Your task to perform on an android device: add a contact Image 0: 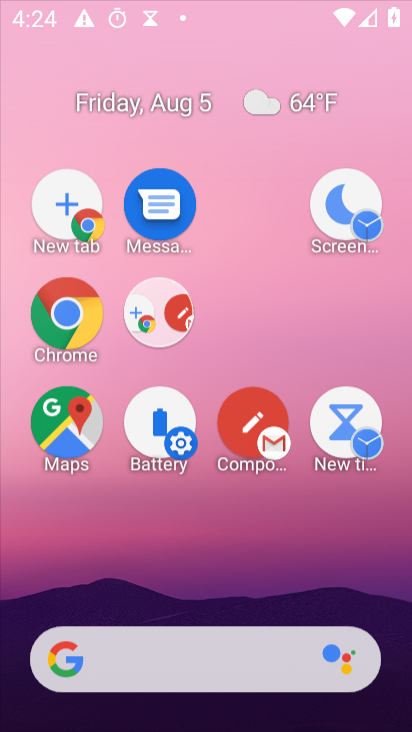
Step 0: press back button
Your task to perform on an android device: add a contact Image 1: 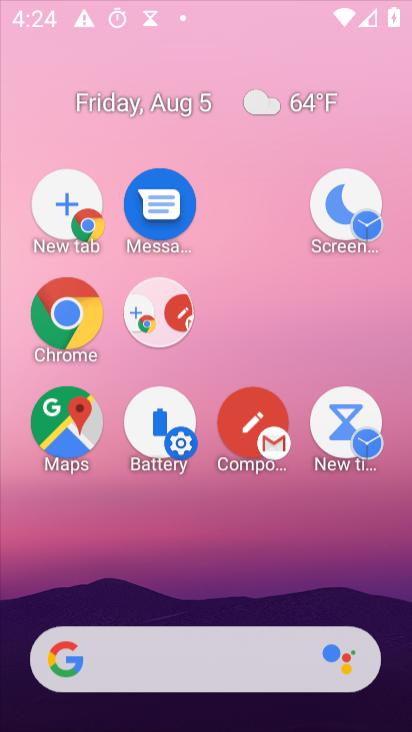
Step 1: click (126, 224)
Your task to perform on an android device: add a contact Image 2: 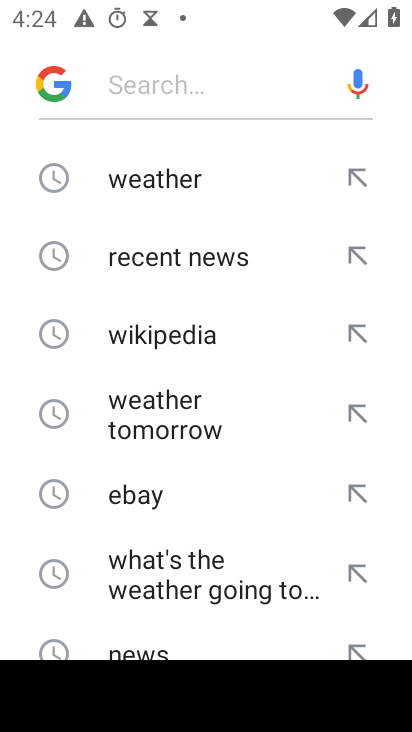
Step 2: press back button
Your task to perform on an android device: add a contact Image 3: 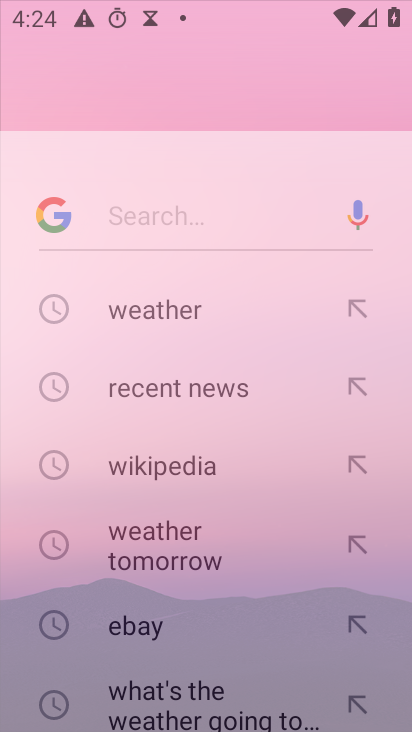
Step 3: click (221, 170)
Your task to perform on an android device: add a contact Image 4: 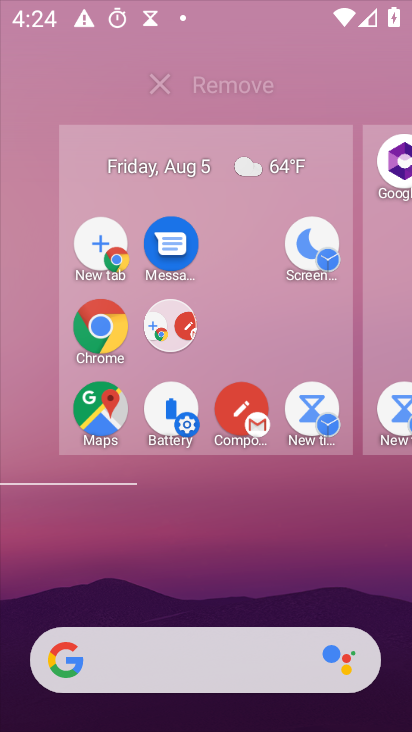
Step 4: drag from (206, 557) to (110, 36)
Your task to perform on an android device: add a contact Image 5: 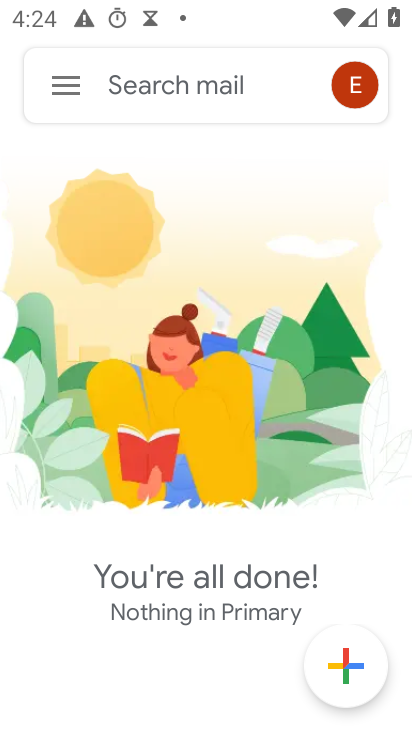
Step 5: drag from (229, 520) to (119, 123)
Your task to perform on an android device: add a contact Image 6: 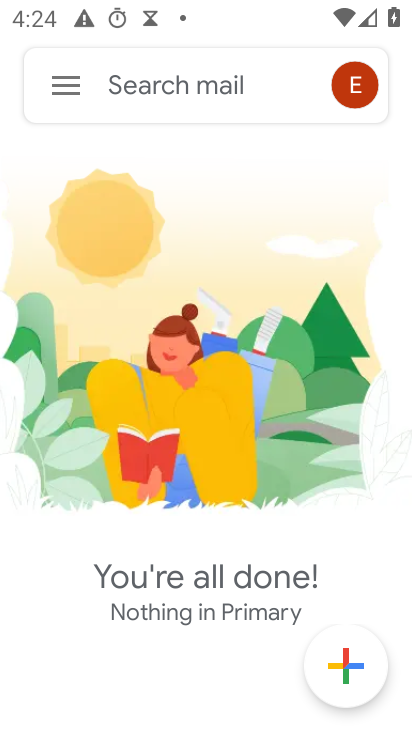
Step 6: press back button
Your task to perform on an android device: add a contact Image 7: 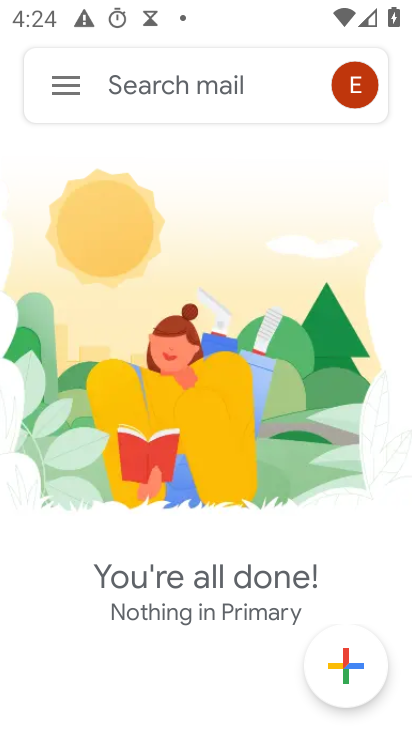
Step 7: press back button
Your task to perform on an android device: add a contact Image 8: 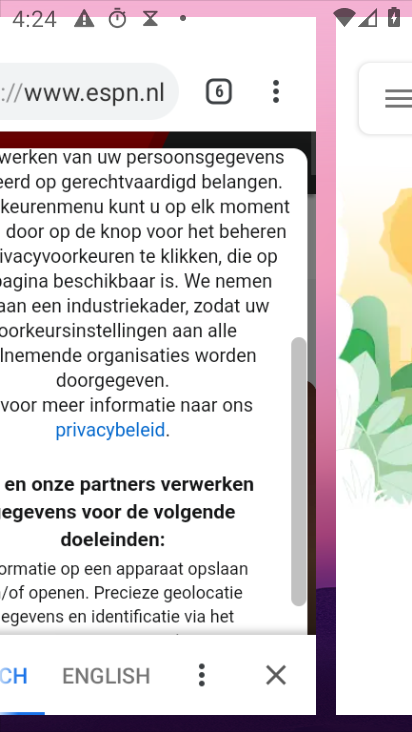
Step 8: press back button
Your task to perform on an android device: add a contact Image 9: 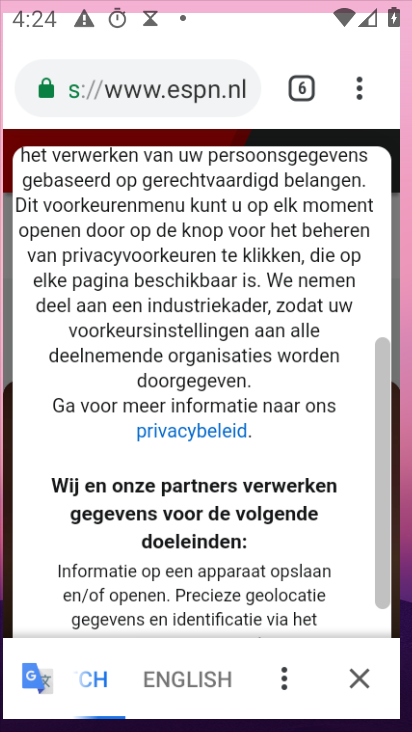
Step 9: press home button
Your task to perform on an android device: add a contact Image 10: 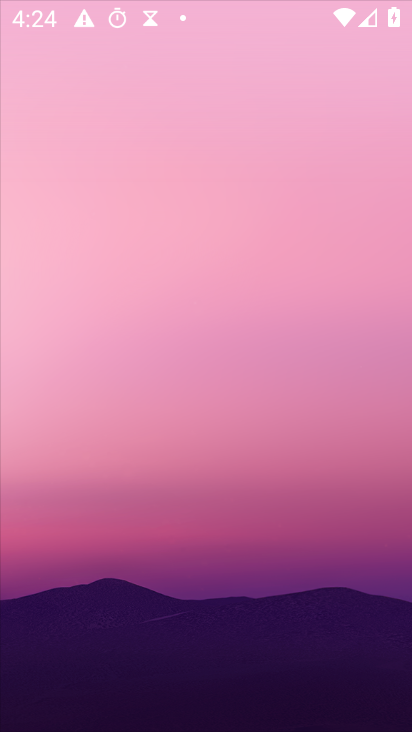
Step 10: press back button
Your task to perform on an android device: add a contact Image 11: 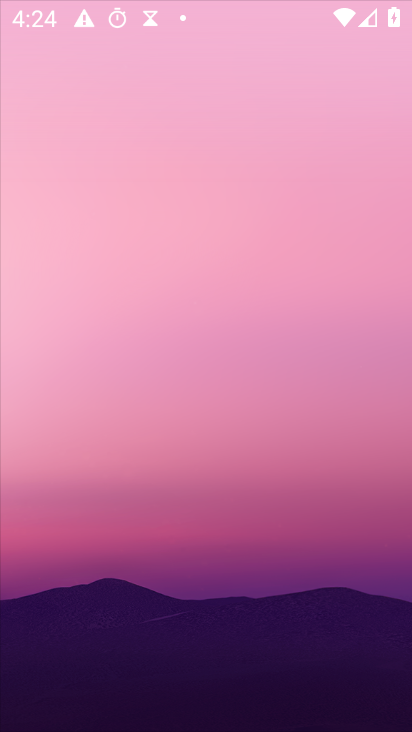
Step 11: drag from (117, 244) to (192, 293)
Your task to perform on an android device: add a contact Image 12: 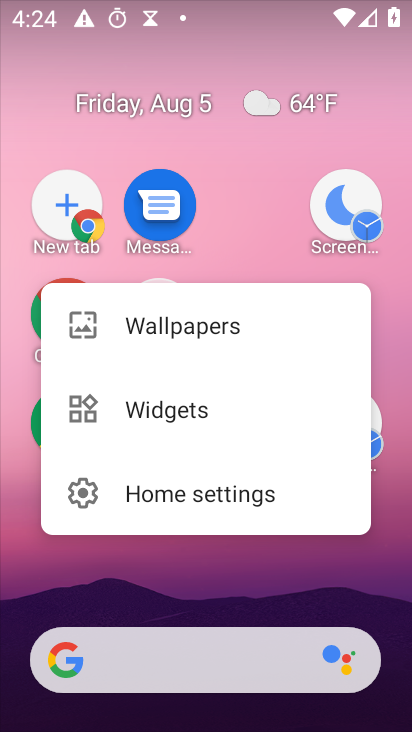
Step 12: click (141, 87)
Your task to perform on an android device: add a contact Image 13: 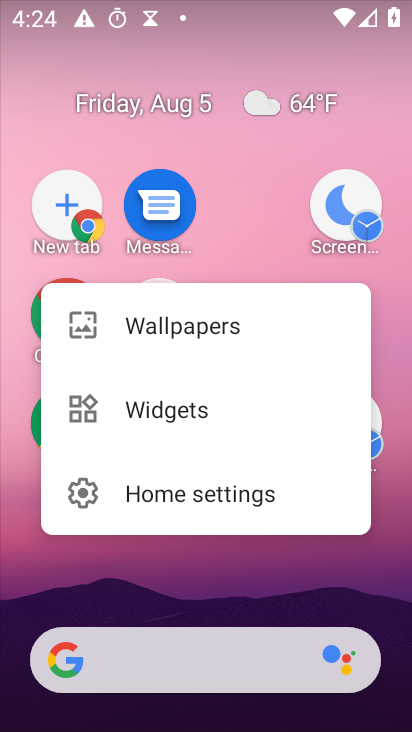
Step 13: drag from (233, 429) to (187, 152)
Your task to perform on an android device: add a contact Image 14: 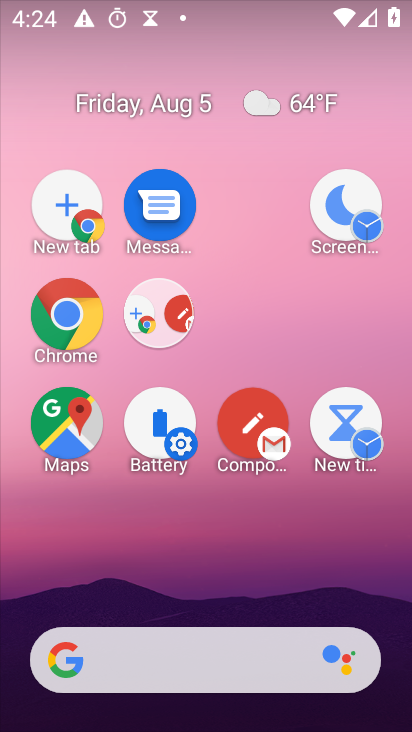
Step 14: drag from (213, 215) to (192, 89)
Your task to perform on an android device: add a contact Image 15: 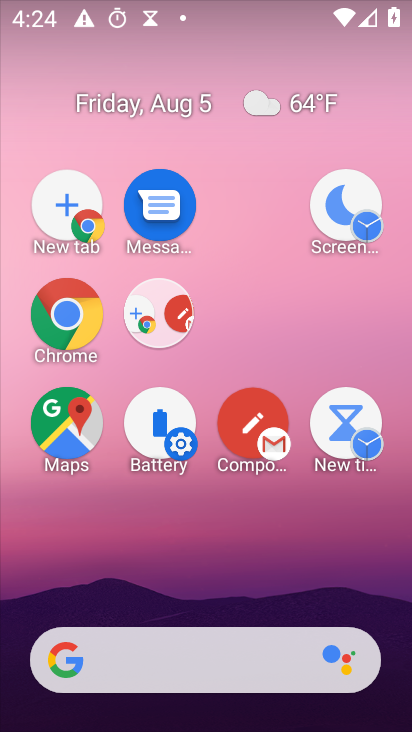
Step 15: drag from (218, 439) to (162, 44)
Your task to perform on an android device: add a contact Image 16: 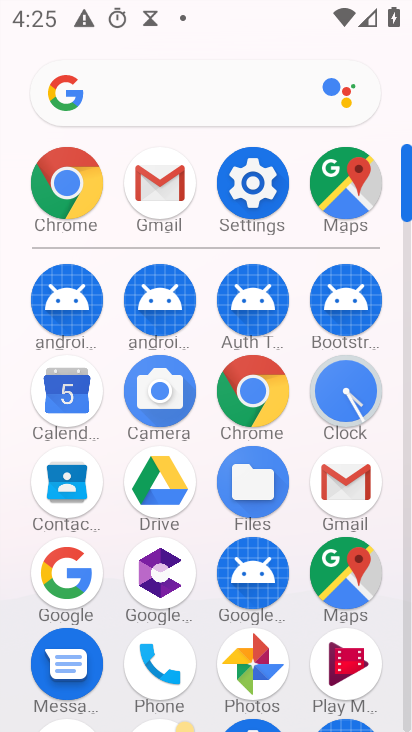
Step 16: click (89, 497)
Your task to perform on an android device: add a contact Image 17: 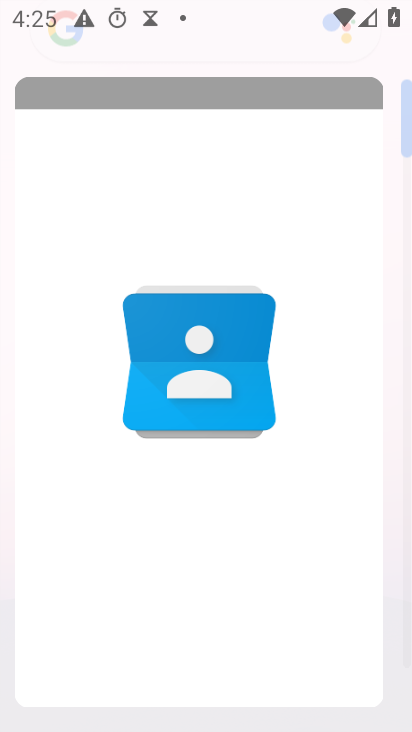
Step 17: click (62, 474)
Your task to perform on an android device: add a contact Image 18: 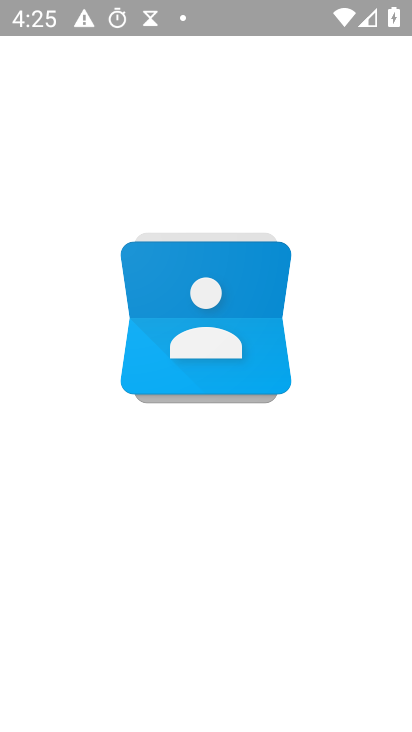
Step 18: click (62, 474)
Your task to perform on an android device: add a contact Image 19: 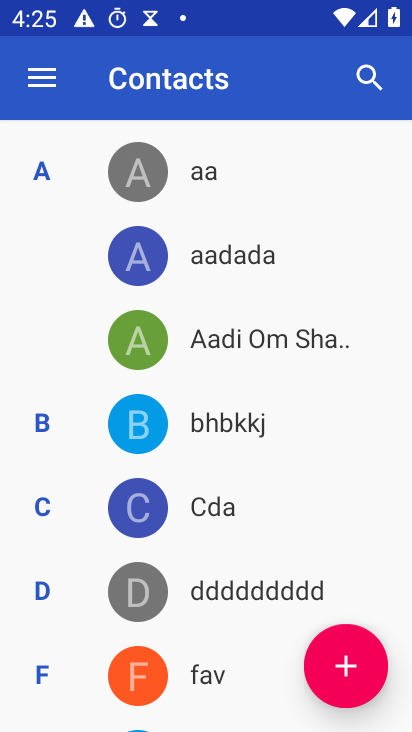
Step 19: click (347, 664)
Your task to perform on an android device: add a contact Image 20: 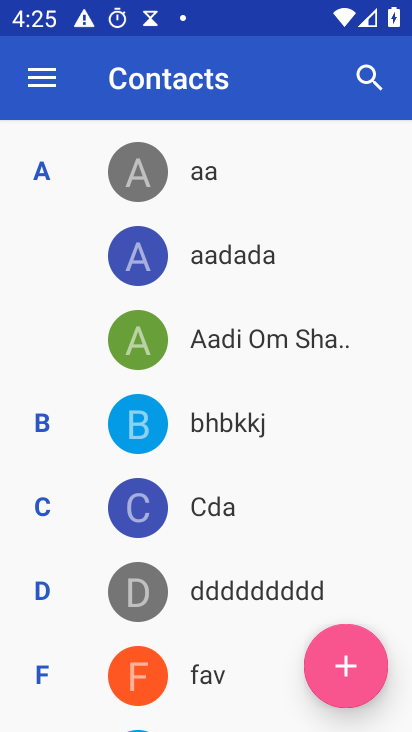
Step 20: click (337, 660)
Your task to perform on an android device: add a contact Image 21: 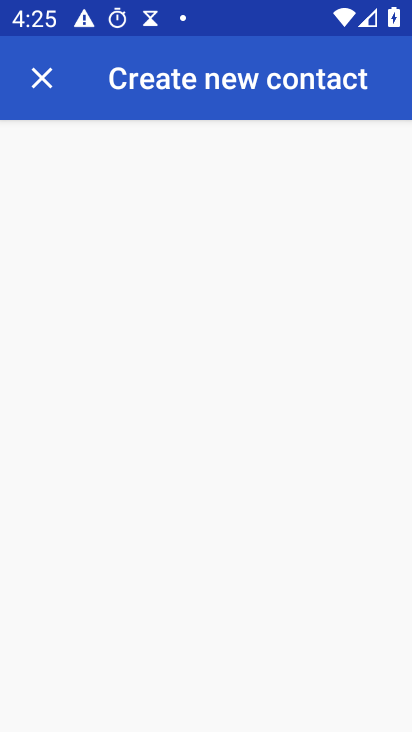
Step 21: click (338, 656)
Your task to perform on an android device: add a contact Image 22: 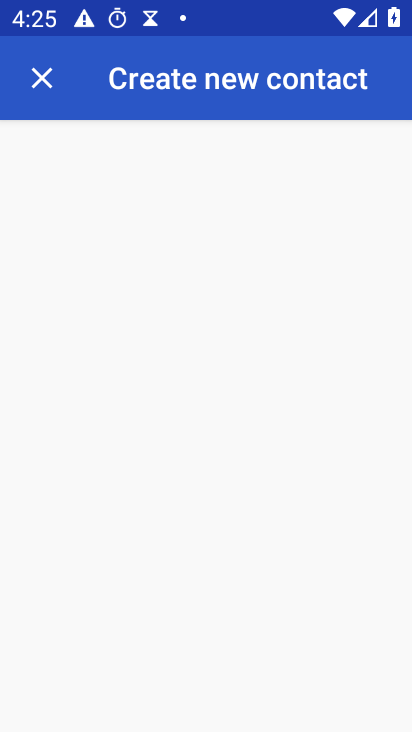
Step 22: click (339, 658)
Your task to perform on an android device: add a contact Image 23: 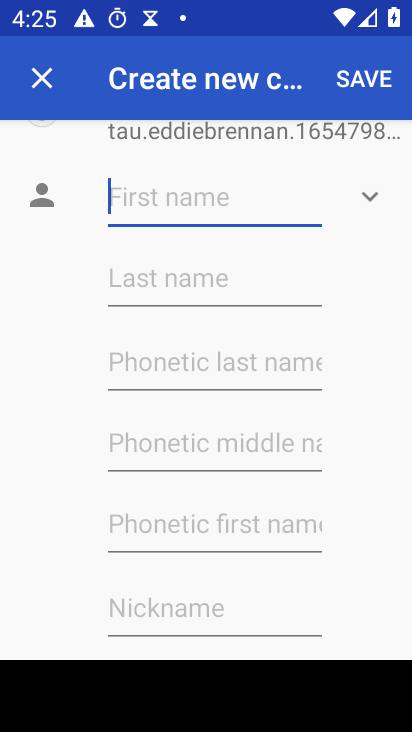
Step 23: type "vd chj cxhj"
Your task to perform on an android device: add a contact Image 24: 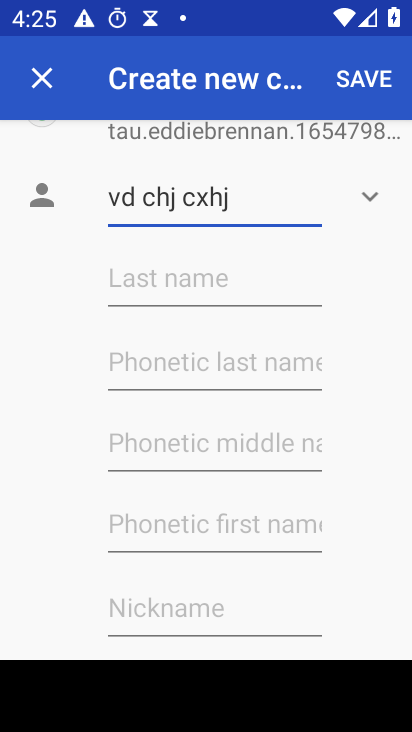
Step 24: click (154, 366)
Your task to perform on an android device: add a contact Image 25: 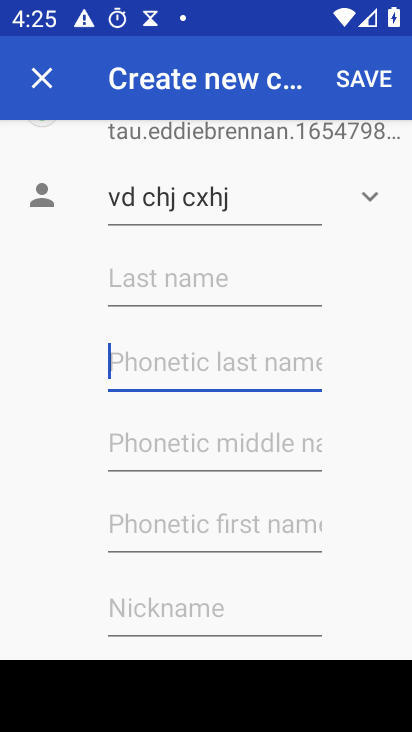
Step 25: drag from (195, 512) to (183, 203)
Your task to perform on an android device: add a contact Image 26: 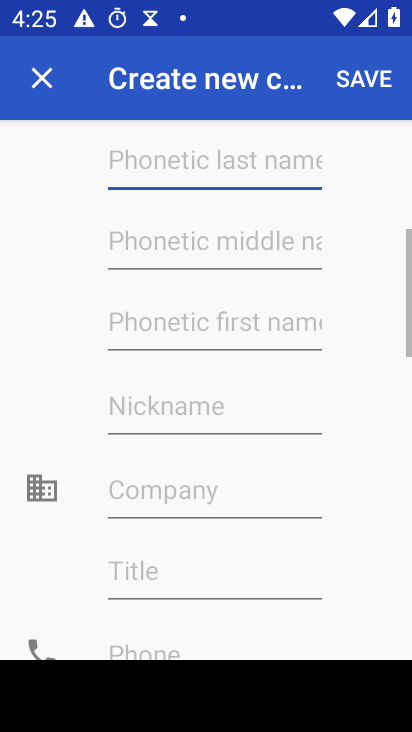
Step 26: drag from (207, 476) to (215, 243)
Your task to perform on an android device: add a contact Image 27: 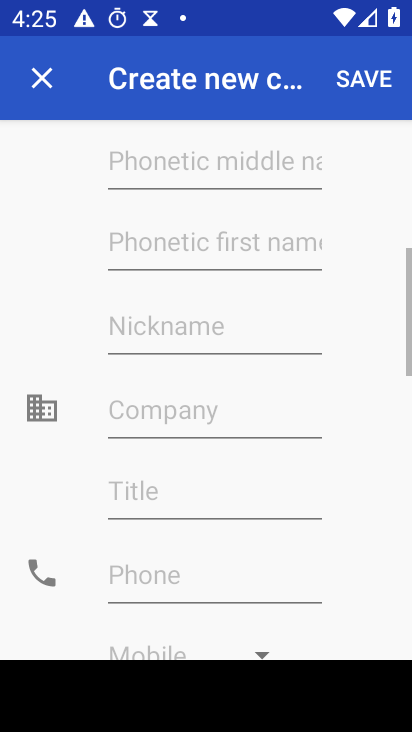
Step 27: drag from (217, 507) to (231, 282)
Your task to perform on an android device: add a contact Image 28: 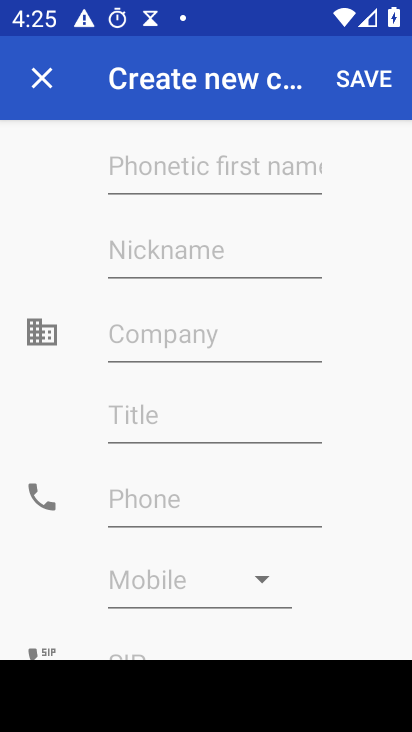
Step 28: click (129, 518)
Your task to perform on an android device: add a contact Image 29: 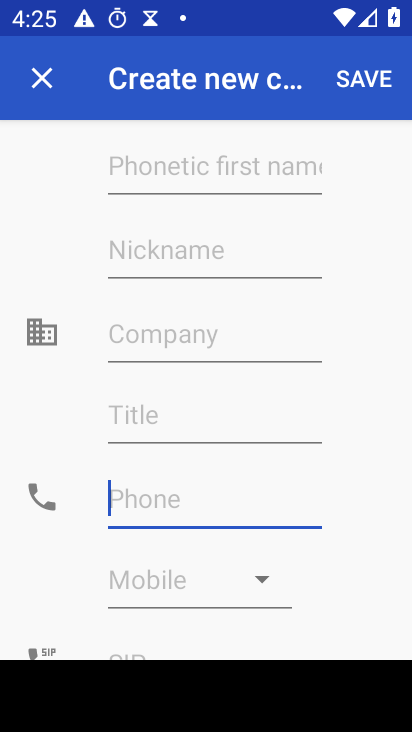
Step 29: click (130, 518)
Your task to perform on an android device: add a contact Image 30: 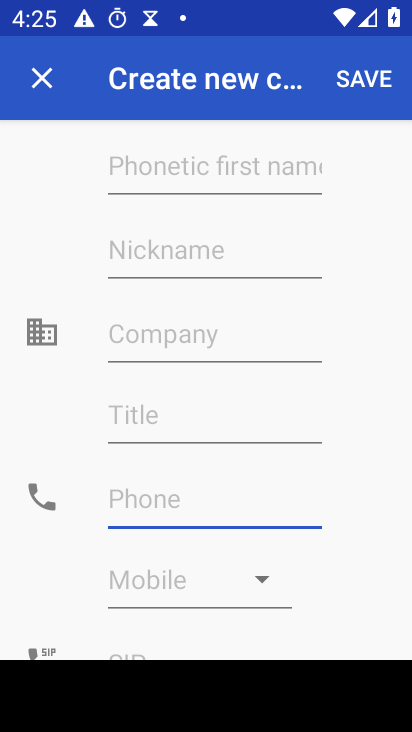
Step 30: click (130, 518)
Your task to perform on an android device: add a contact Image 31: 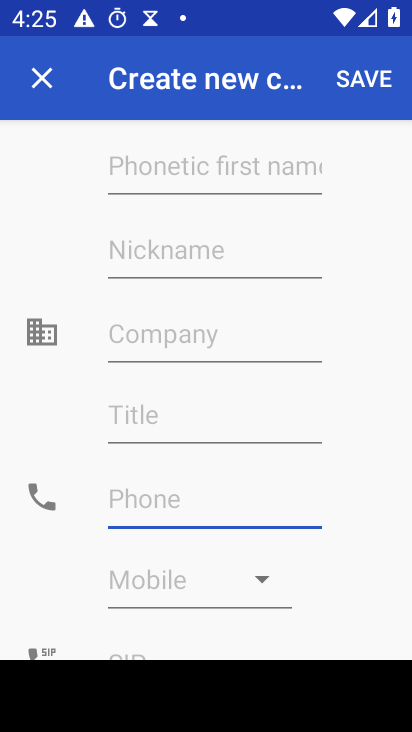
Step 31: click (136, 577)
Your task to perform on an android device: add a contact Image 32: 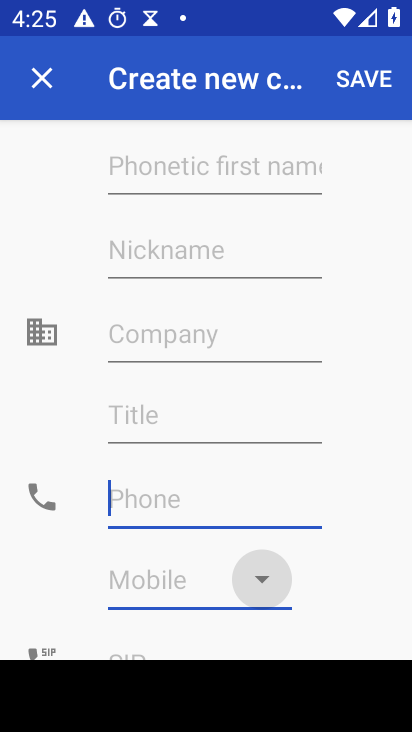
Step 32: click (136, 580)
Your task to perform on an android device: add a contact Image 33: 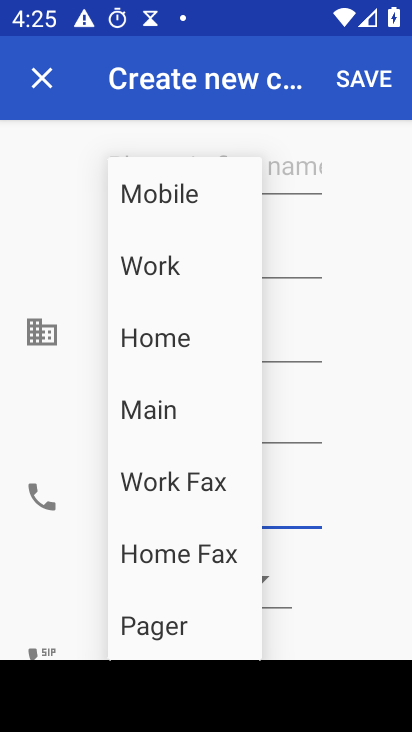
Step 33: click (165, 323)
Your task to perform on an android device: add a contact Image 34: 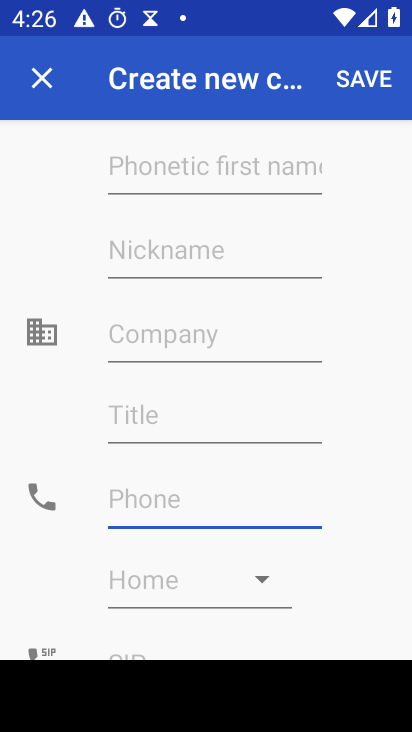
Step 34: type "75675887y837894"
Your task to perform on an android device: add a contact Image 35: 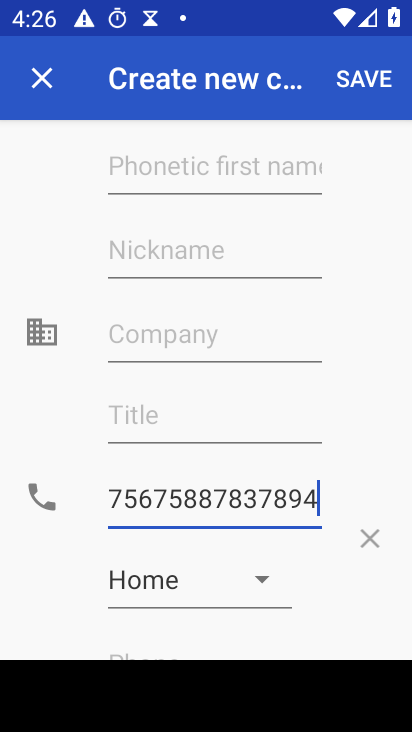
Step 35: click (365, 78)
Your task to perform on an android device: add a contact Image 36: 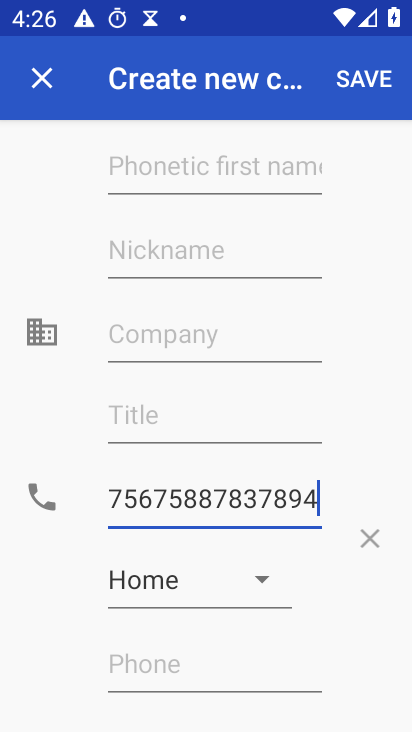
Step 36: task complete